Your task to perform on an android device: Search for pizza restaurants on Maps Image 0: 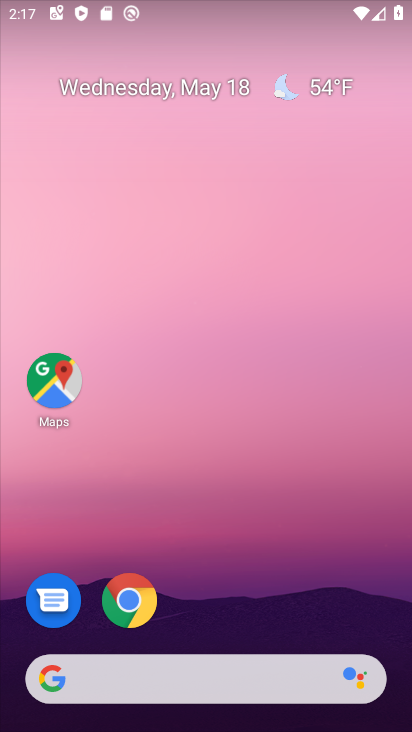
Step 0: click (65, 370)
Your task to perform on an android device: Search for pizza restaurants on Maps Image 1: 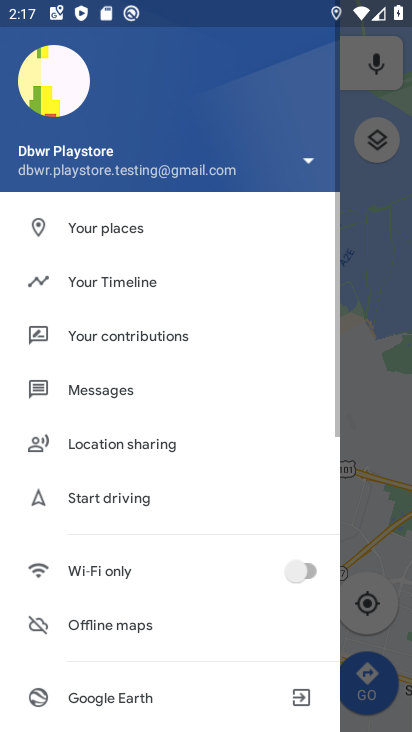
Step 1: click (387, 229)
Your task to perform on an android device: Search for pizza restaurants on Maps Image 2: 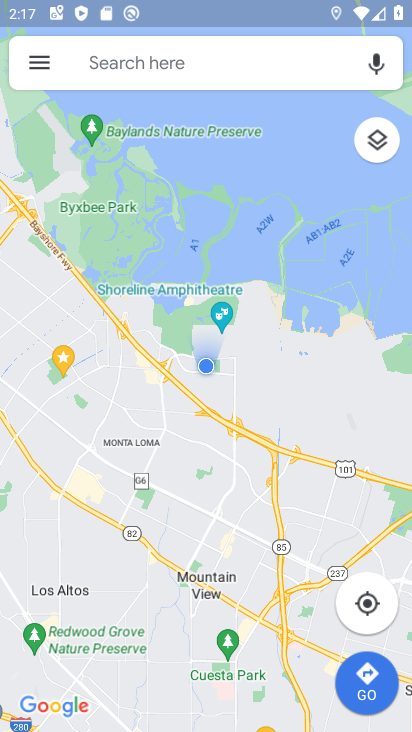
Step 2: click (137, 73)
Your task to perform on an android device: Search for pizza restaurants on Maps Image 3: 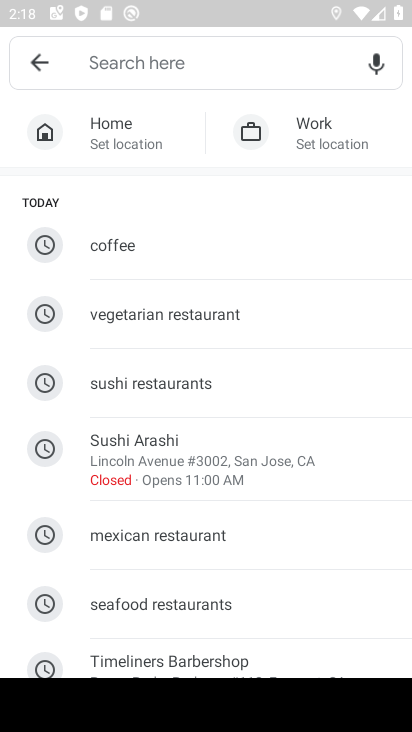
Step 3: type "pizza restaurant"
Your task to perform on an android device: Search for pizza restaurants on Maps Image 4: 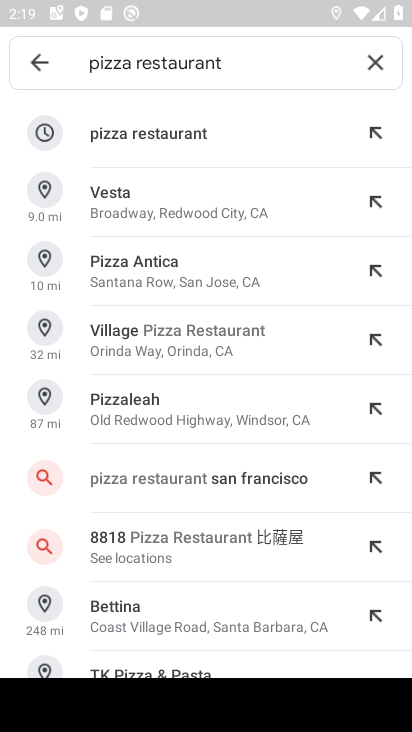
Step 4: click (130, 142)
Your task to perform on an android device: Search for pizza restaurants on Maps Image 5: 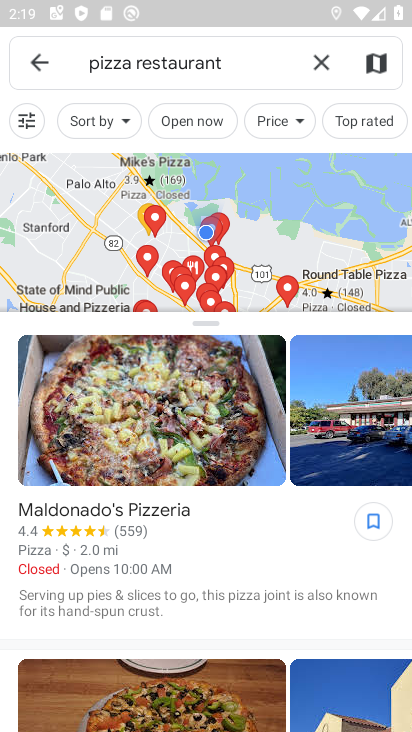
Step 5: task complete